Your task to perform on an android device: install app "Indeed Job Search" Image 0: 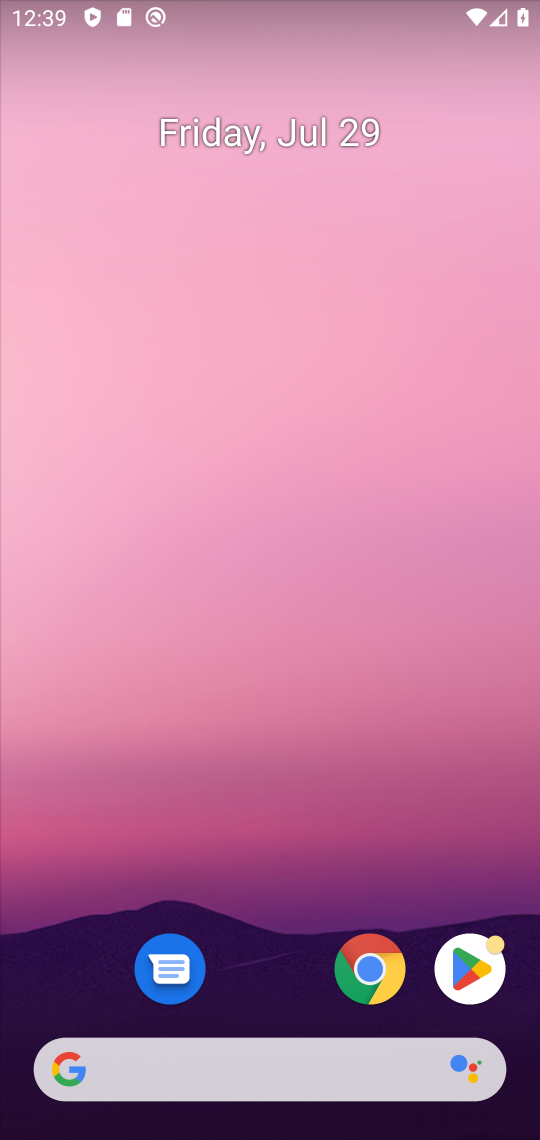
Step 0: click (467, 975)
Your task to perform on an android device: install app "Indeed Job Search" Image 1: 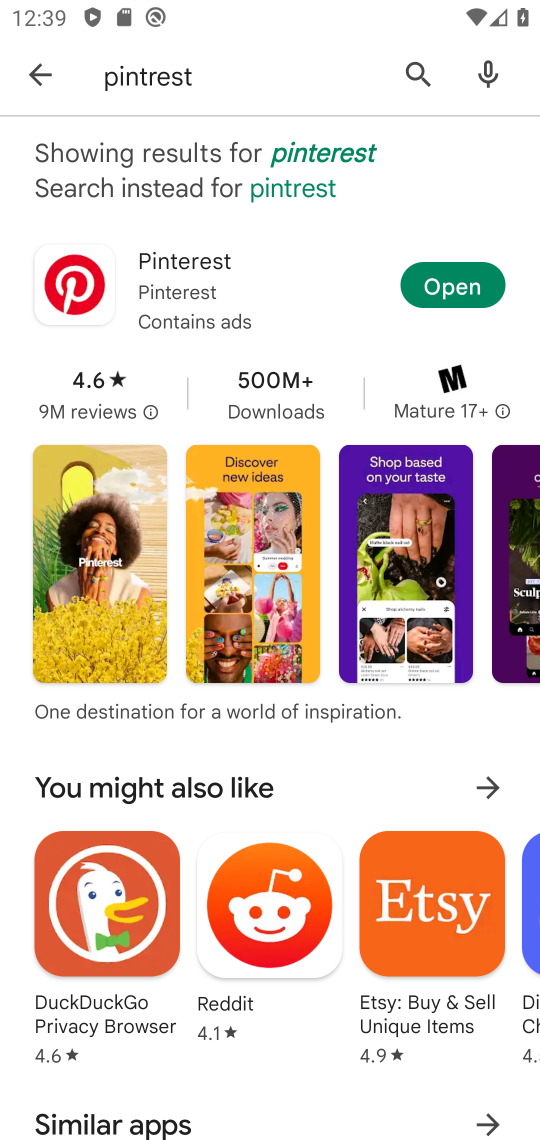
Step 1: click (396, 80)
Your task to perform on an android device: install app "Indeed Job Search" Image 2: 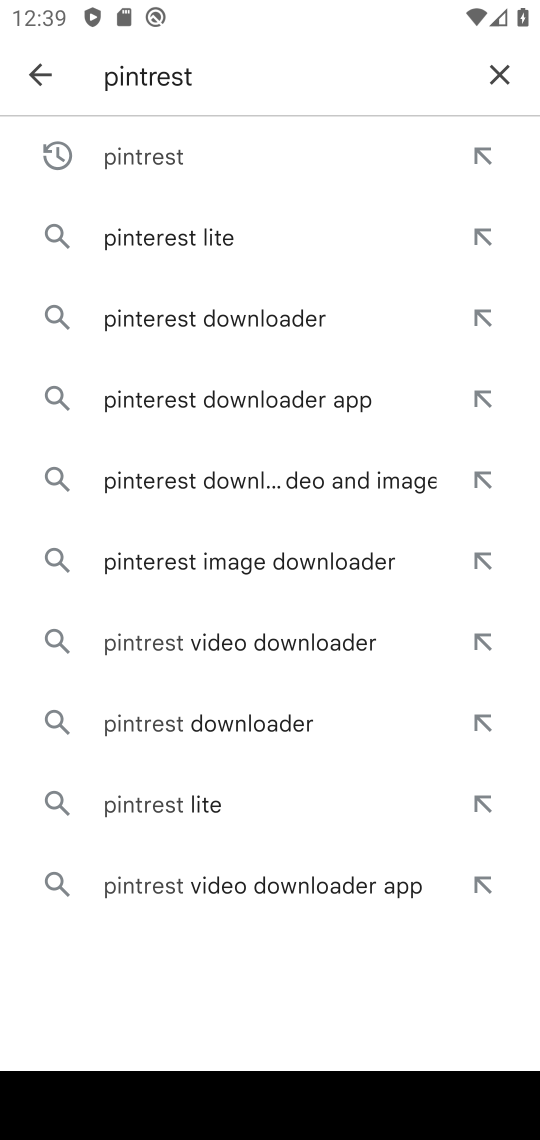
Step 2: click (500, 65)
Your task to perform on an android device: install app "Indeed Job Search" Image 3: 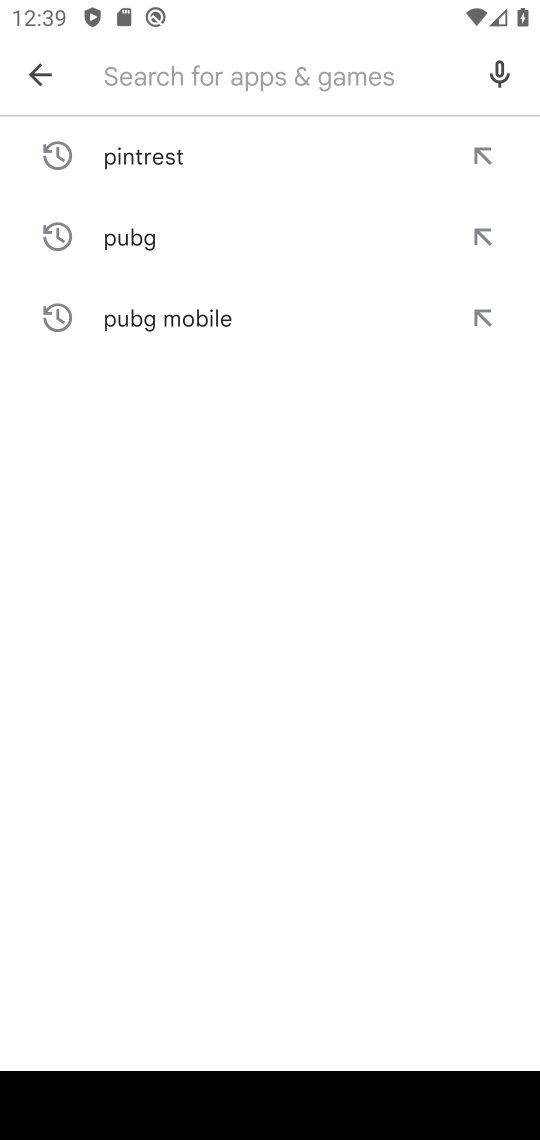
Step 3: type "indeed"
Your task to perform on an android device: install app "Indeed Job Search" Image 4: 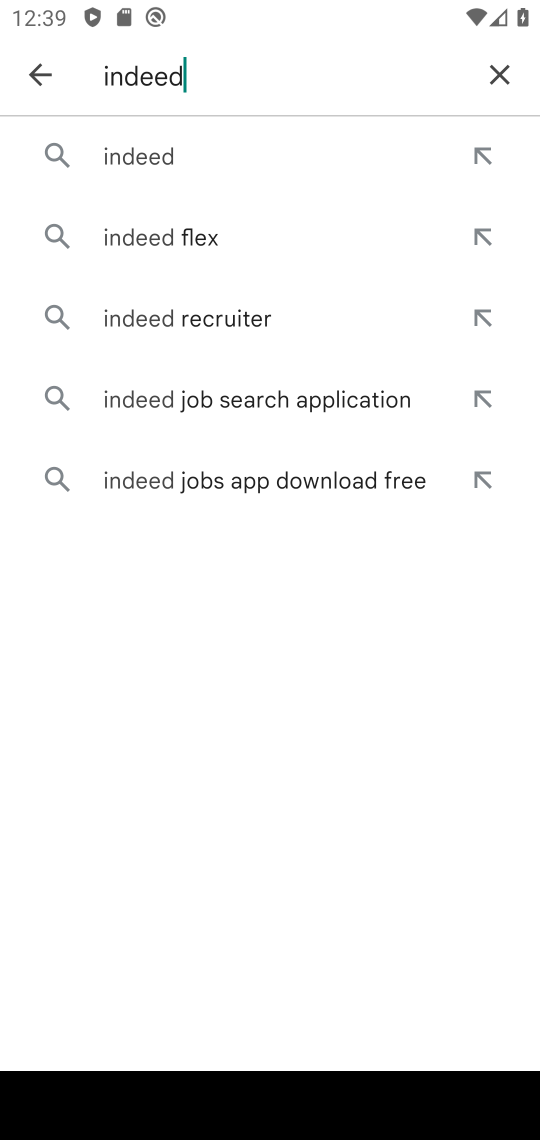
Step 4: click (227, 166)
Your task to perform on an android device: install app "Indeed Job Search" Image 5: 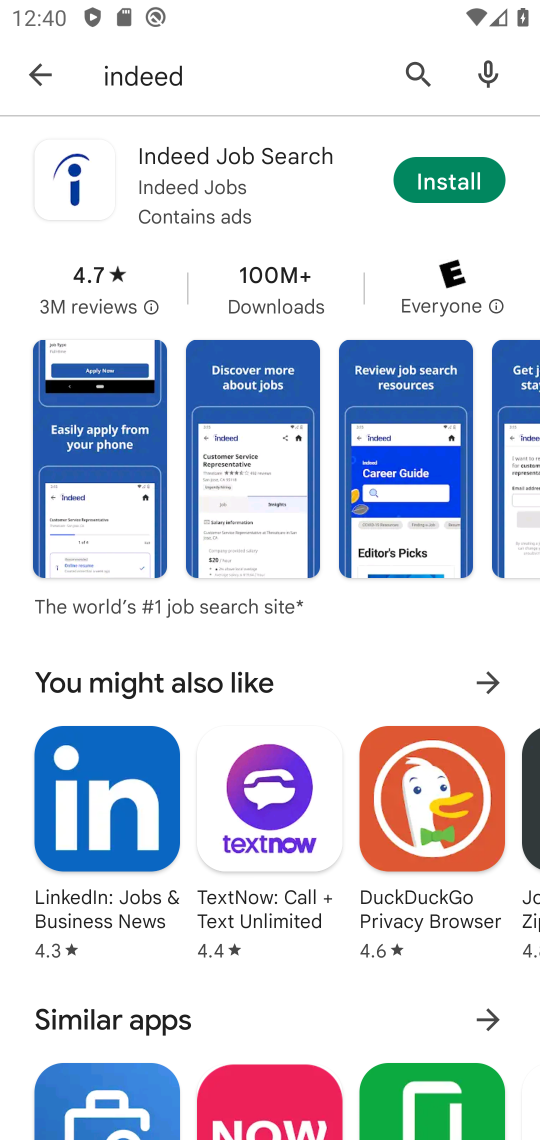
Step 5: click (444, 178)
Your task to perform on an android device: install app "Indeed Job Search" Image 6: 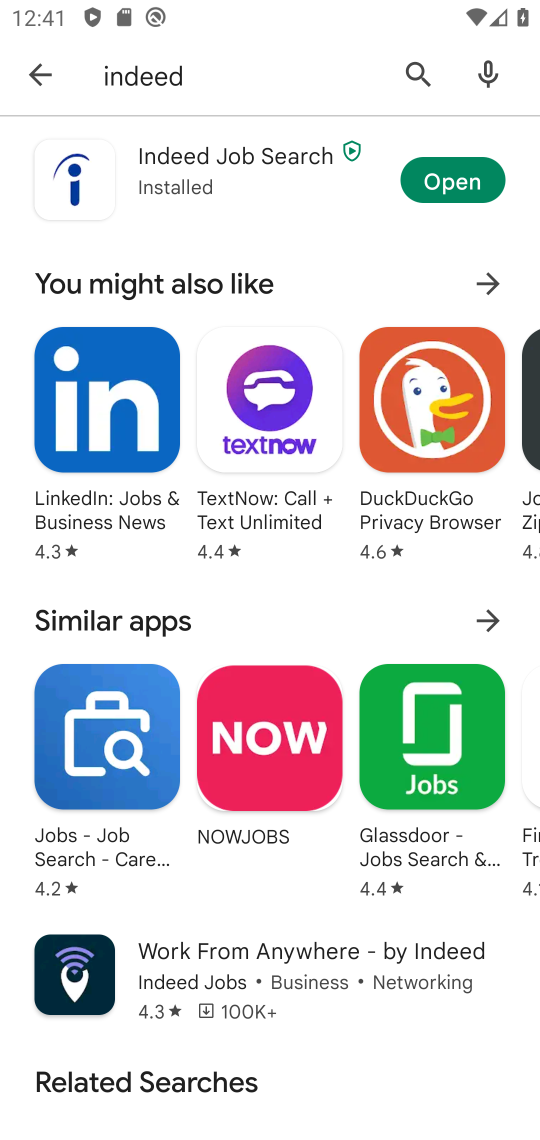
Step 6: task complete